Your task to perform on an android device: Go to ESPN.com Image 0: 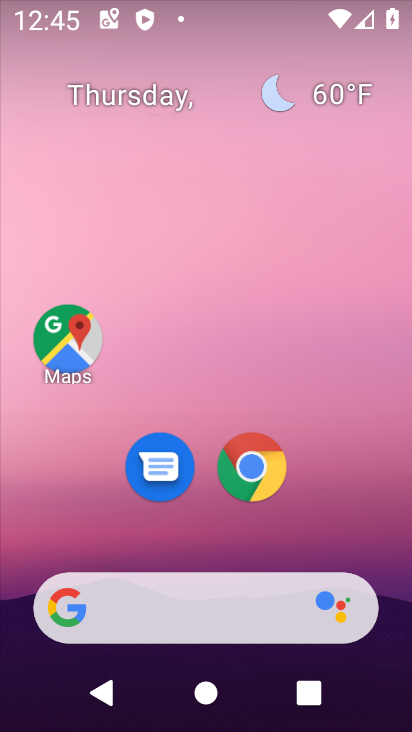
Step 0: click (250, 476)
Your task to perform on an android device: Go to ESPN.com Image 1: 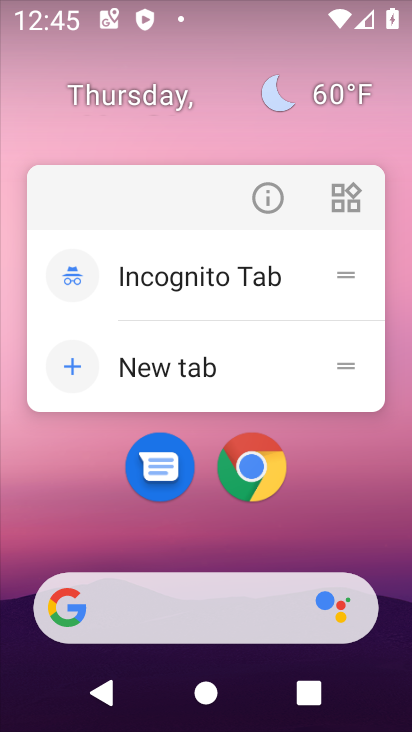
Step 1: click (250, 475)
Your task to perform on an android device: Go to ESPN.com Image 2: 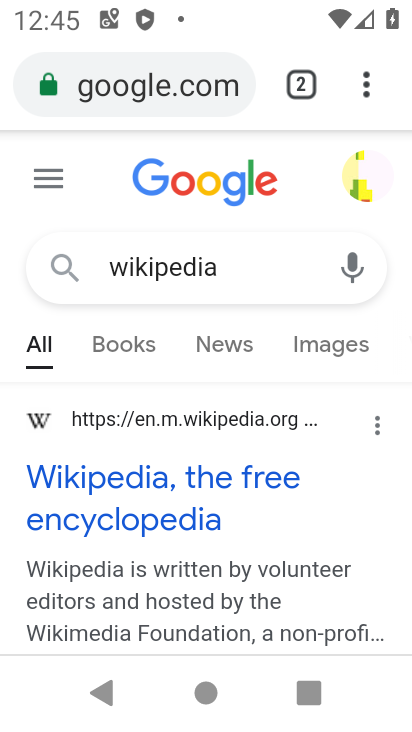
Step 2: click (158, 85)
Your task to perform on an android device: Go to ESPN.com Image 3: 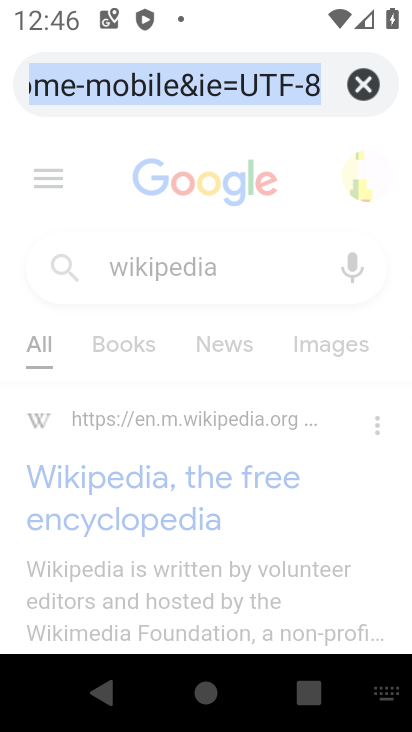
Step 3: type "ESPN.com"
Your task to perform on an android device: Go to ESPN.com Image 4: 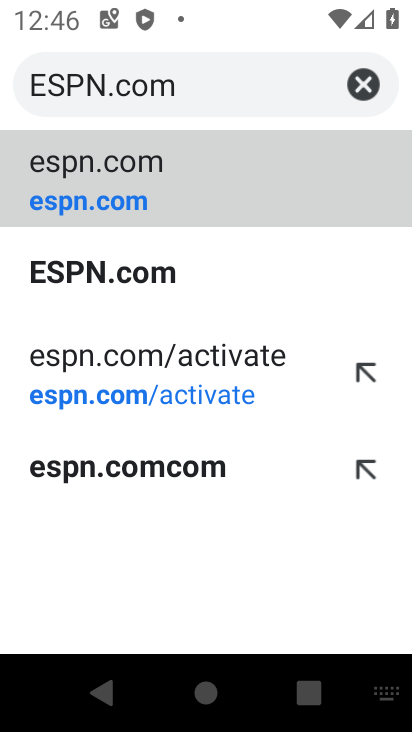
Step 4: click (157, 201)
Your task to perform on an android device: Go to ESPN.com Image 5: 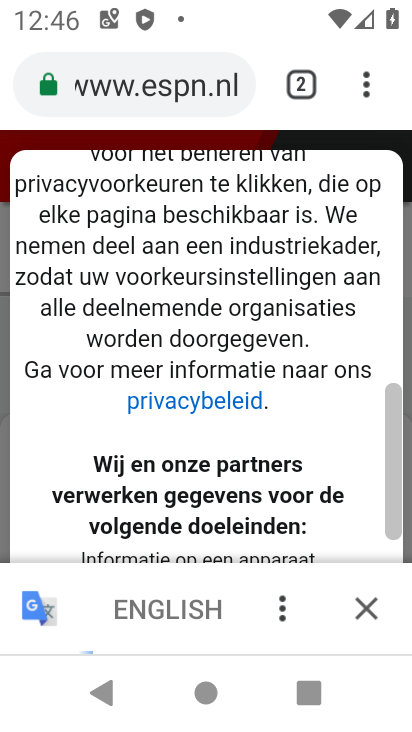
Step 5: task complete